Your task to perform on an android device: Go to Yahoo.com Image 0: 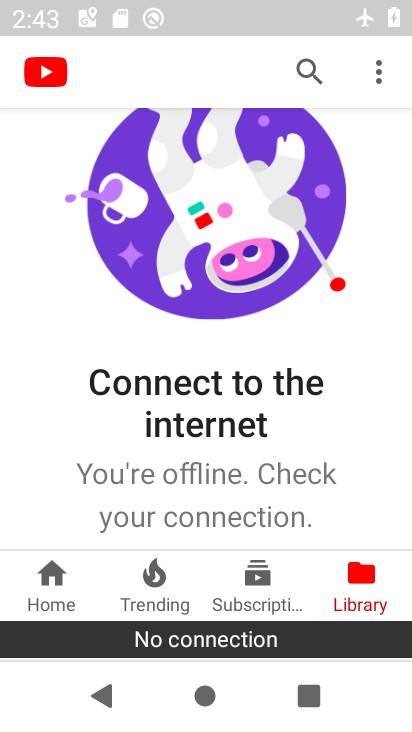
Step 0: drag from (254, 7) to (248, 597)
Your task to perform on an android device: Go to Yahoo.com Image 1: 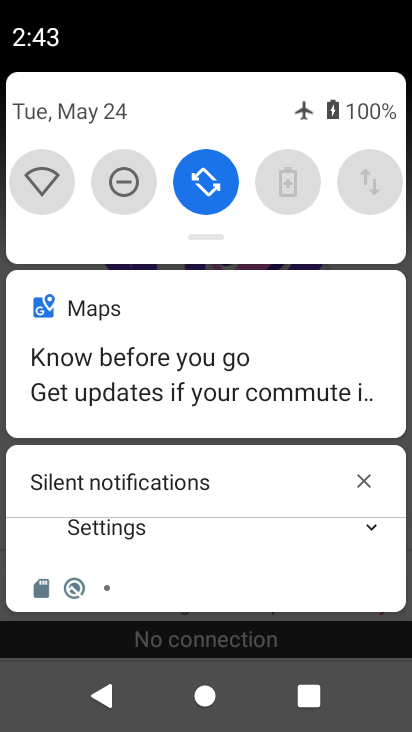
Step 1: drag from (222, 581) to (222, 629)
Your task to perform on an android device: Go to Yahoo.com Image 2: 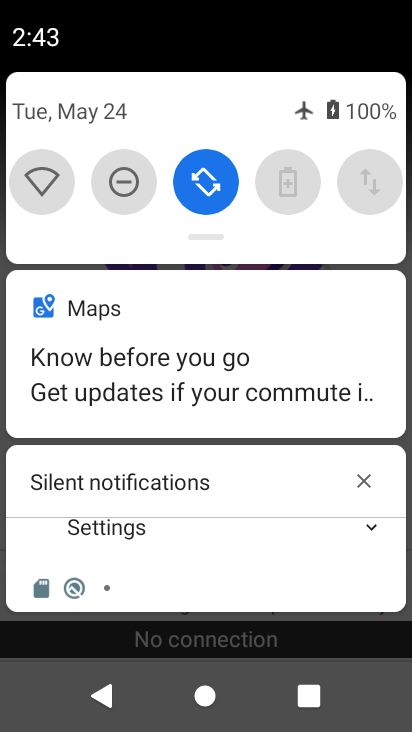
Step 2: drag from (248, 233) to (240, 717)
Your task to perform on an android device: Go to Yahoo.com Image 3: 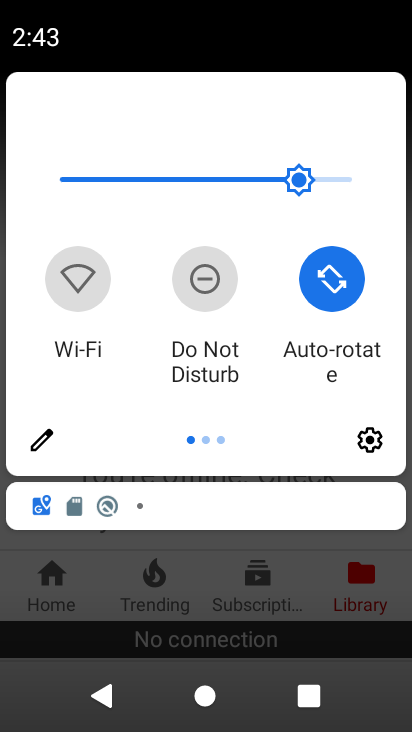
Step 3: drag from (370, 297) to (3, 294)
Your task to perform on an android device: Go to Yahoo.com Image 4: 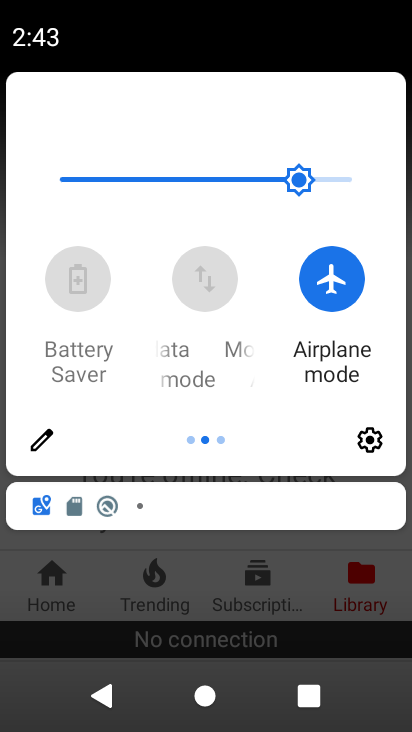
Step 4: click (328, 270)
Your task to perform on an android device: Go to Yahoo.com Image 5: 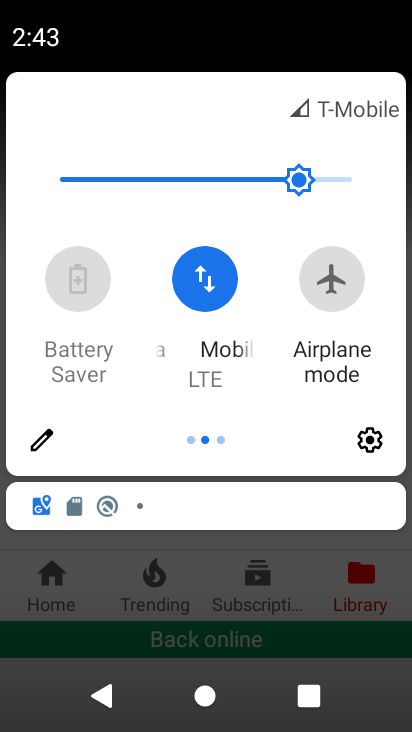
Step 5: task complete